Your task to perform on an android device: all mails in gmail Image 0: 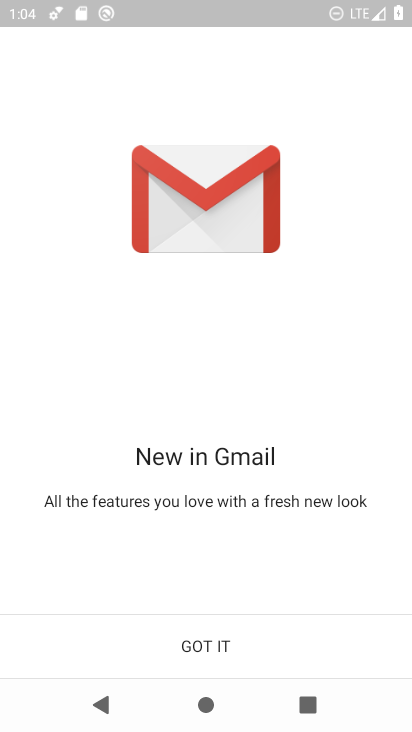
Step 0: click (205, 636)
Your task to perform on an android device: all mails in gmail Image 1: 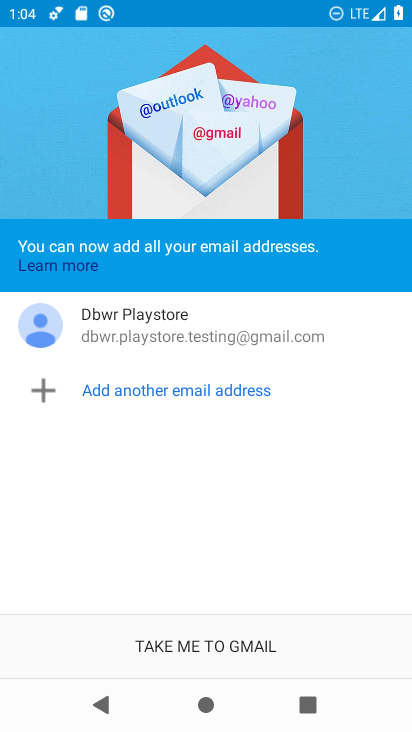
Step 1: click (192, 646)
Your task to perform on an android device: all mails in gmail Image 2: 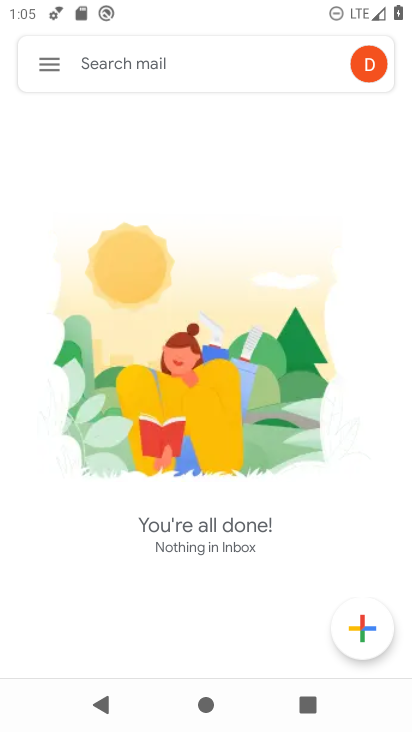
Step 2: click (51, 61)
Your task to perform on an android device: all mails in gmail Image 3: 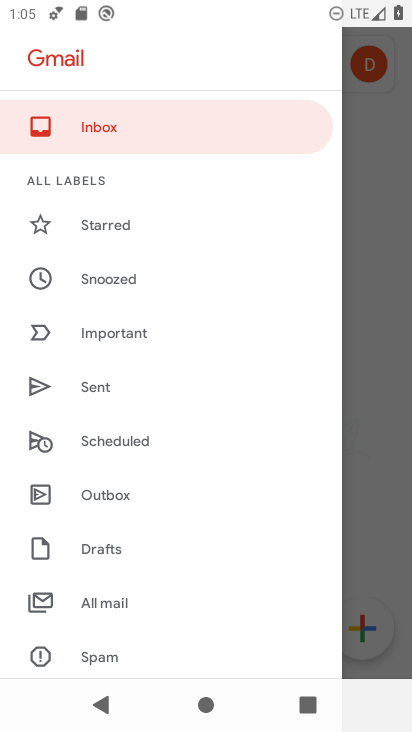
Step 3: click (135, 603)
Your task to perform on an android device: all mails in gmail Image 4: 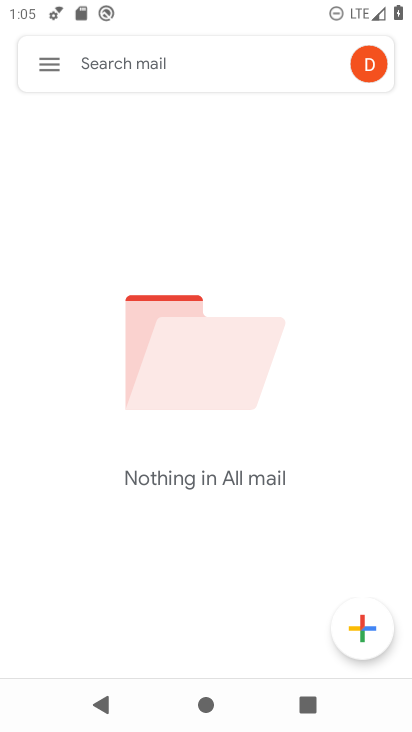
Step 4: task complete